Your task to perform on an android device: snooze an email in the gmail app Image 0: 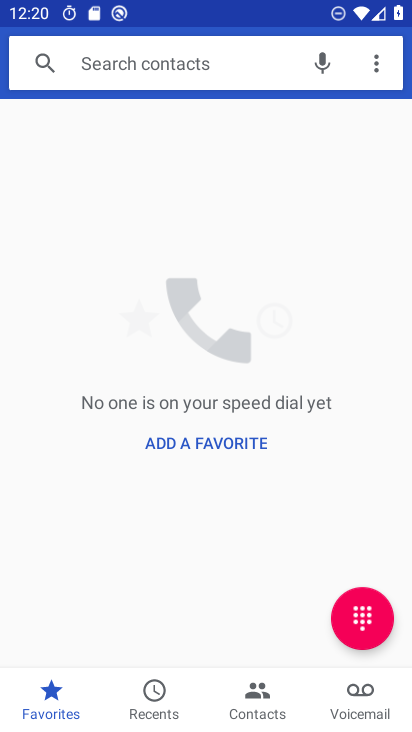
Step 0: press home button
Your task to perform on an android device: snooze an email in the gmail app Image 1: 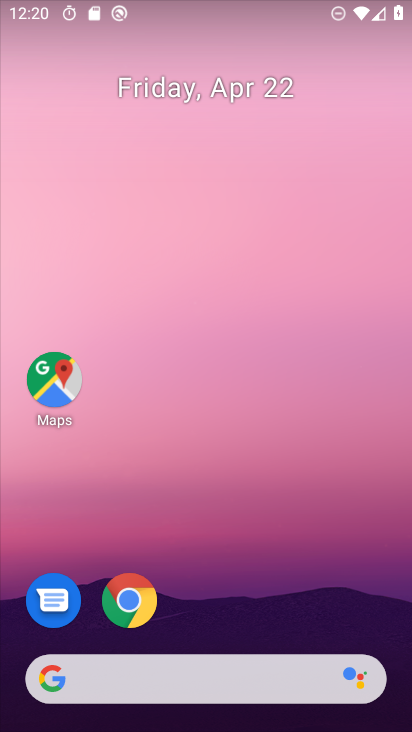
Step 1: drag from (253, 588) to (213, 141)
Your task to perform on an android device: snooze an email in the gmail app Image 2: 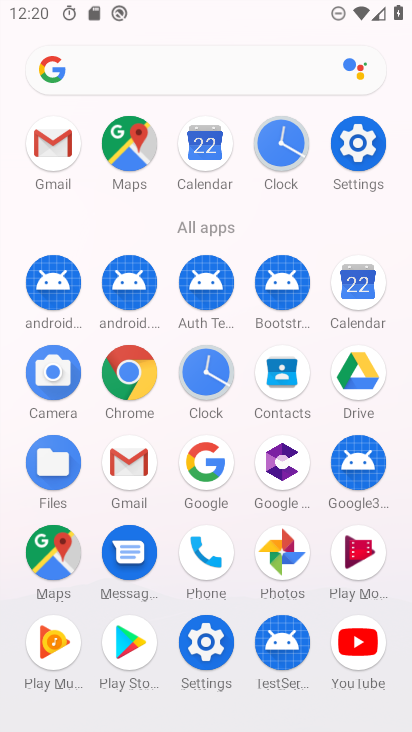
Step 2: click (52, 147)
Your task to perform on an android device: snooze an email in the gmail app Image 3: 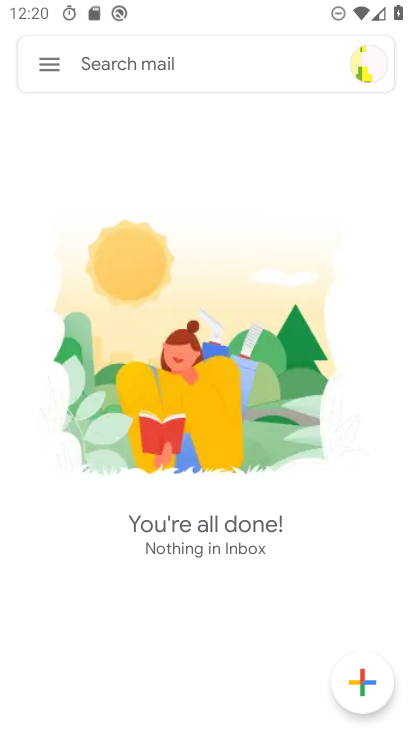
Step 3: click (45, 63)
Your task to perform on an android device: snooze an email in the gmail app Image 4: 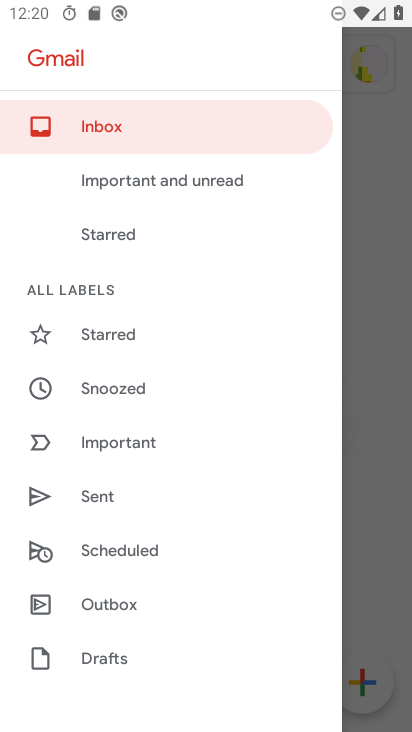
Step 4: drag from (129, 483) to (165, 388)
Your task to perform on an android device: snooze an email in the gmail app Image 5: 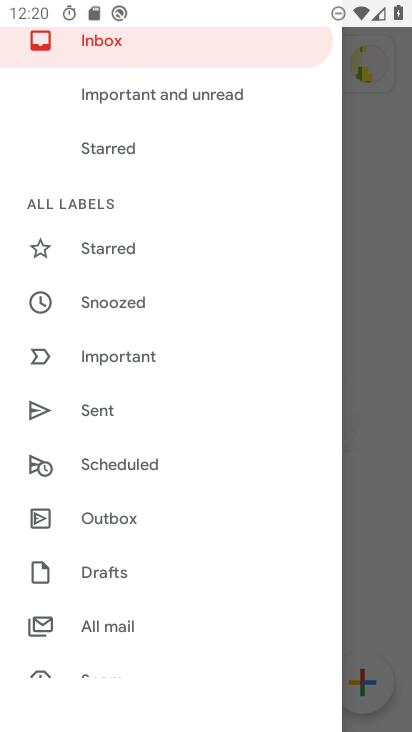
Step 5: click (114, 624)
Your task to perform on an android device: snooze an email in the gmail app Image 6: 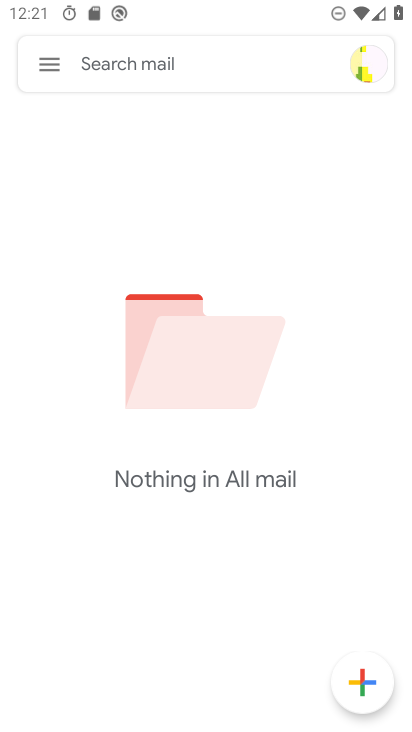
Step 6: task complete